Your task to perform on an android device: turn off location Image 0: 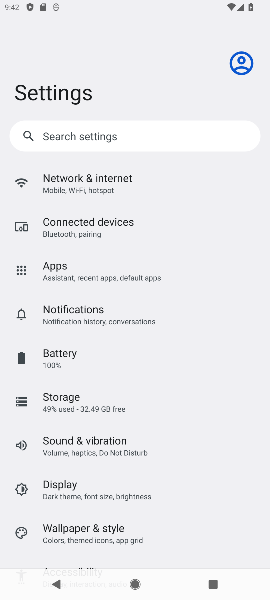
Step 0: press home button
Your task to perform on an android device: turn off location Image 1: 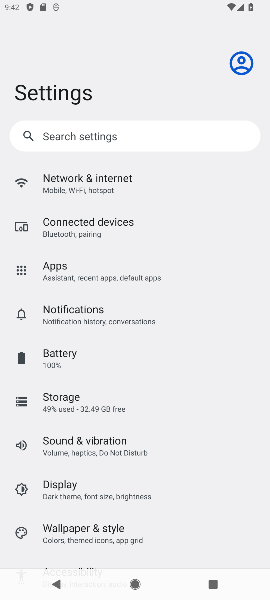
Step 1: press home button
Your task to perform on an android device: turn off location Image 2: 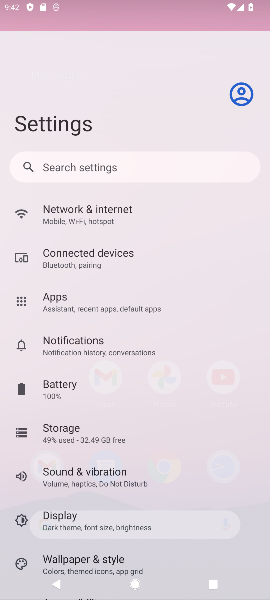
Step 2: press home button
Your task to perform on an android device: turn off location Image 3: 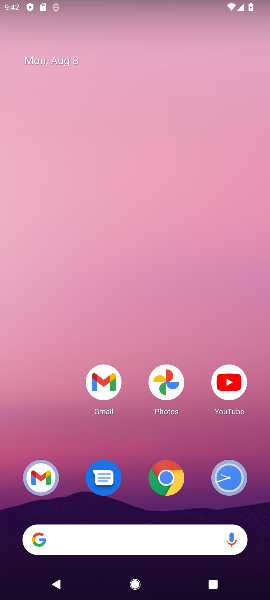
Step 3: press home button
Your task to perform on an android device: turn off location Image 4: 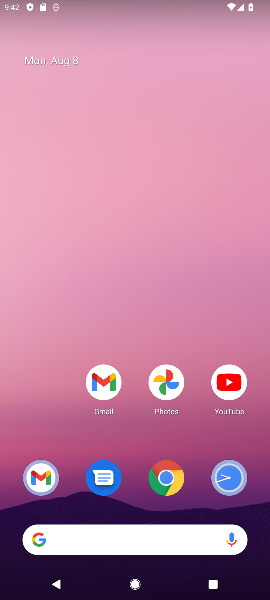
Step 4: drag from (133, 447) to (164, 94)
Your task to perform on an android device: turn off location Image 5: 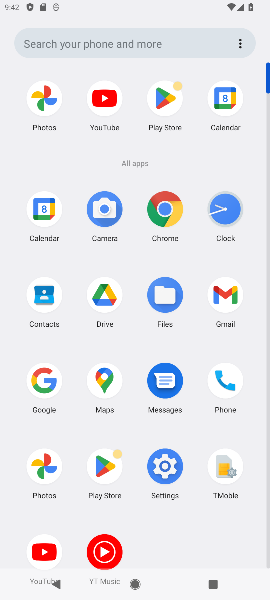
Step 5: click (161, 463)
Your task to perform on an android device: turn off location Image 6: 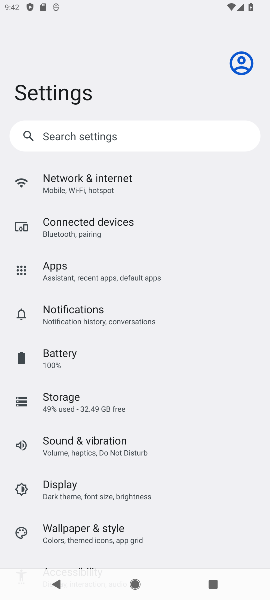
Step 6: drag from (173, 472) to (173, 191)
Your task to perform on an android device: turn off location Image 7: 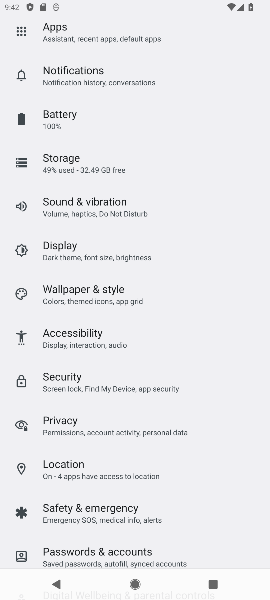
Step 7: click (72, 463)
Your task to perform on an android device: turn off location Image 8: 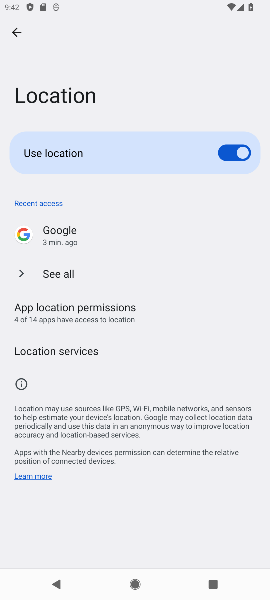
Step 8: click (243, 153)
Your task to perform on an android device: turn off location Image 9: 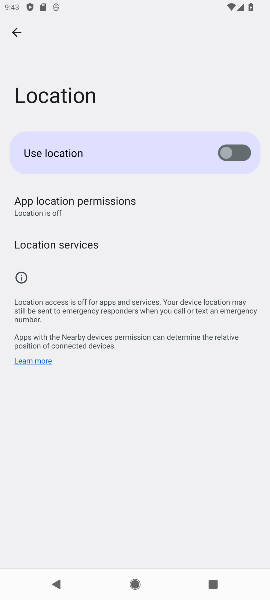
Step 9: task complete